Your task to perform on an android device: refresh tabs in the chrome app Image 0: 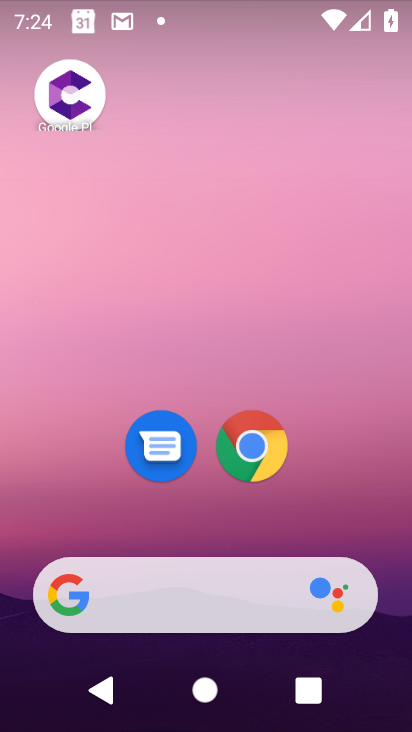
Step 0: click (247, 430)
Your task to perform on an android device: refresh tabs in the chrome app Image 1: 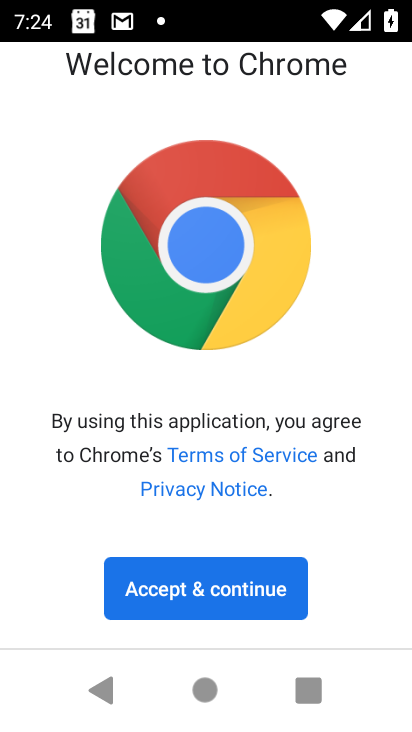
Step 1: click (154, 587)
Your task to perform on an android device: refresh tabs in the chrome app Image 2: 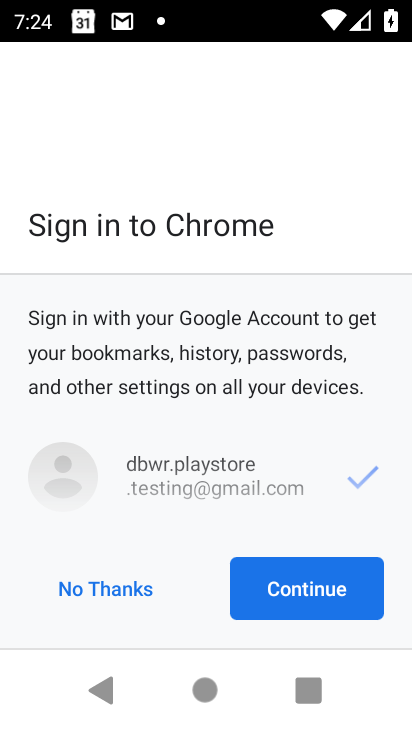
Step 2: click (317, 621)
Your task to perform on an android device: refresh tabs in the chrome app Image 3: 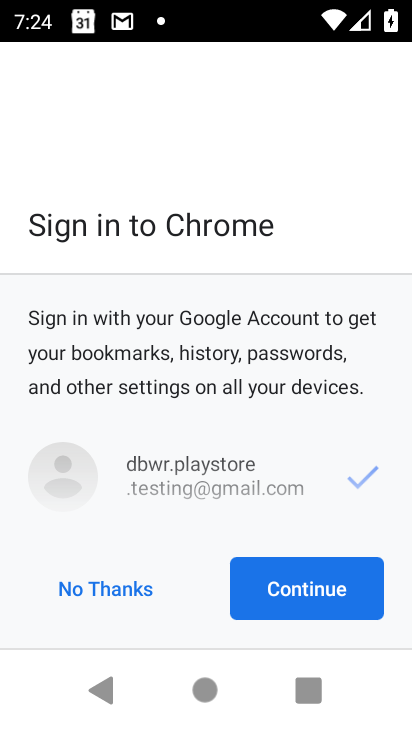
Step 3: click (314, 588)
Your task to perform on an android device: refresh tabs in the chrome app Image 4: 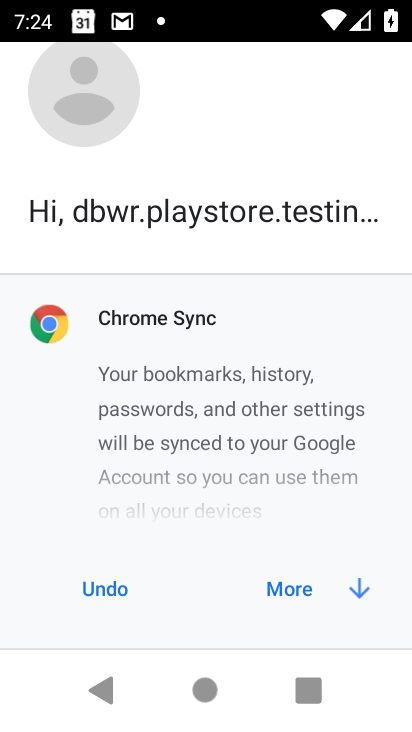
Step 4: click (309, 590)
Your task to perform on an android device: refresh tabs in the chrome app Image 5: 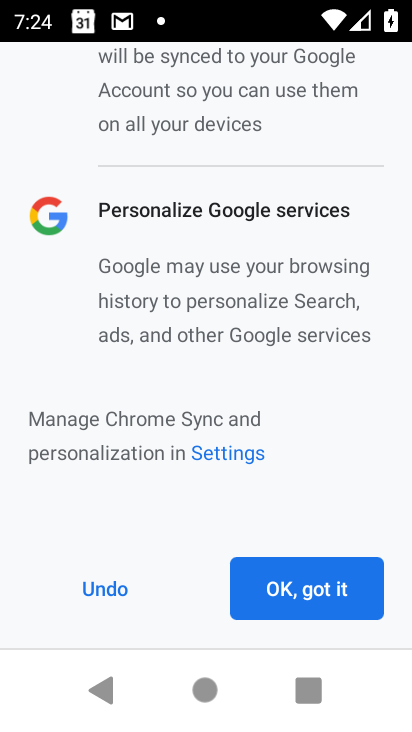
Step 5: click (309, 590)
Your task to perform on an android device: refresh tabs in the chrome app Image 6: 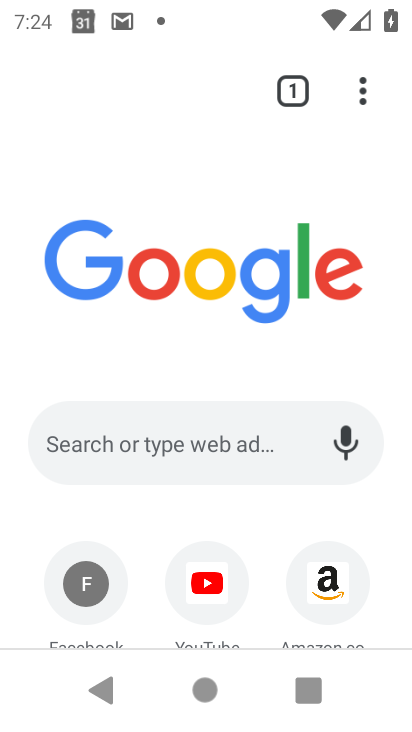
Step 6: click (360, 93)
Your task to perform on an android device: refresh tabs in the chrome app Image 7: 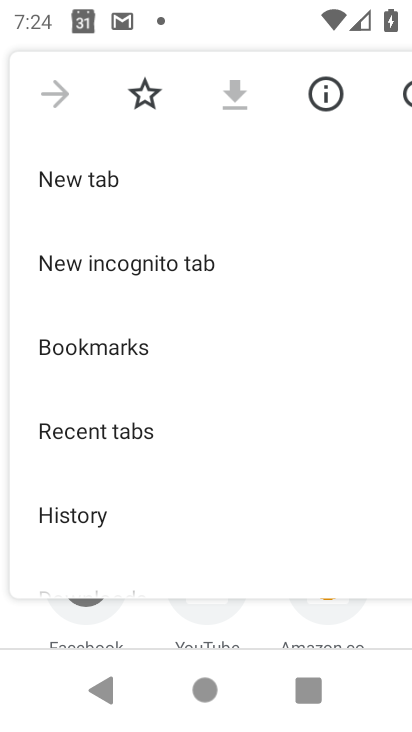
Step 7: click (409, 102)
Your task to perform on an android device: refresh tabs in the chrome app Image 8: 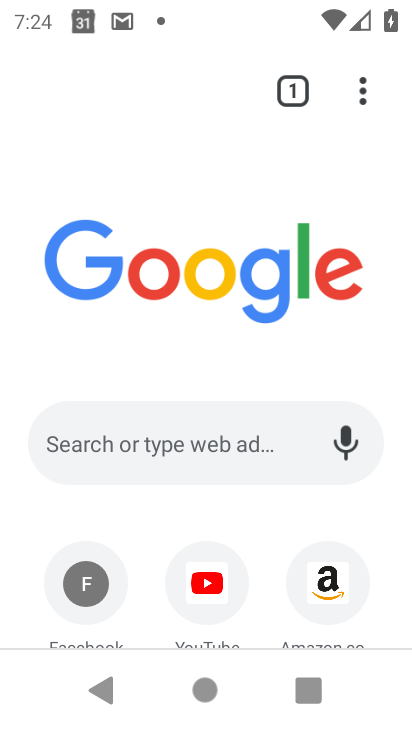
Step 8: task complete